Your task to perform on an android device: Go to Amazon Image 0: 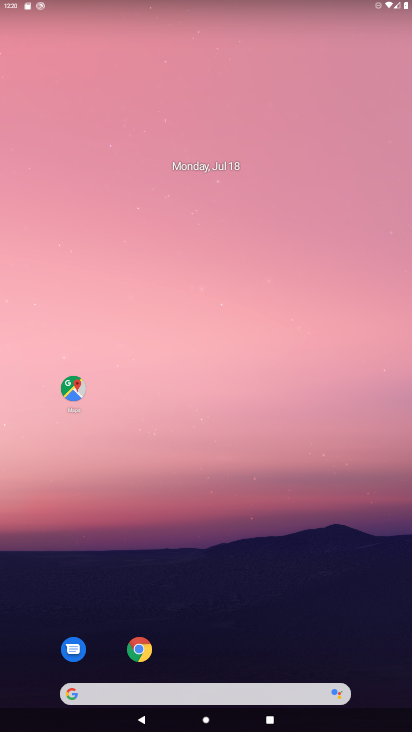
Step 0: click (142, 643)
Your task to perform on an android device: Go to Amazon Image 1: 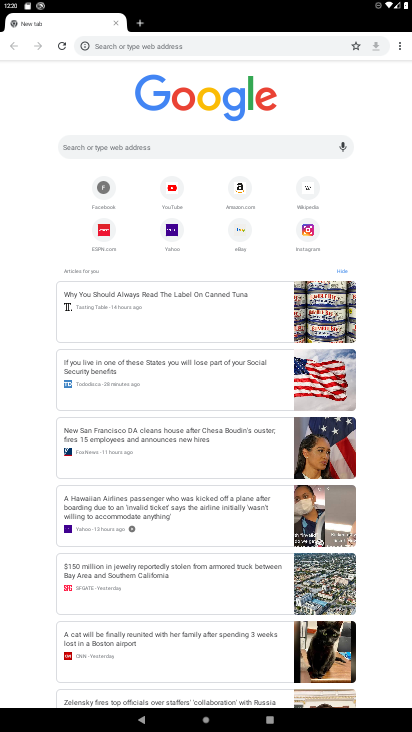
Step 1: click (246, 189)
Your task to perform on an android device: Go to Amazon Image 2: 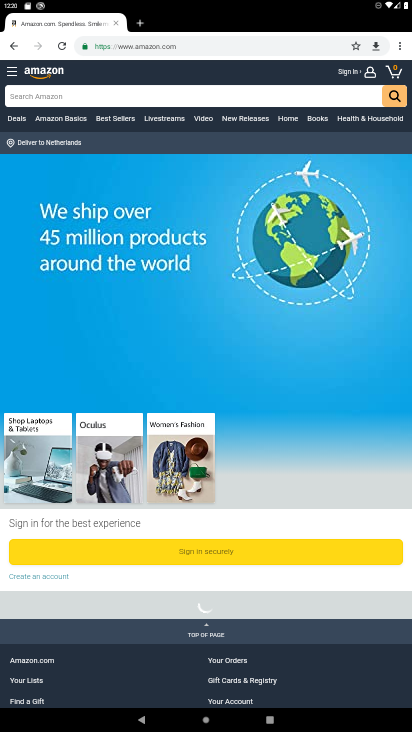
Step 2: task complete